Your task to perform on an android device: see creations saved in the google photos Image 0: 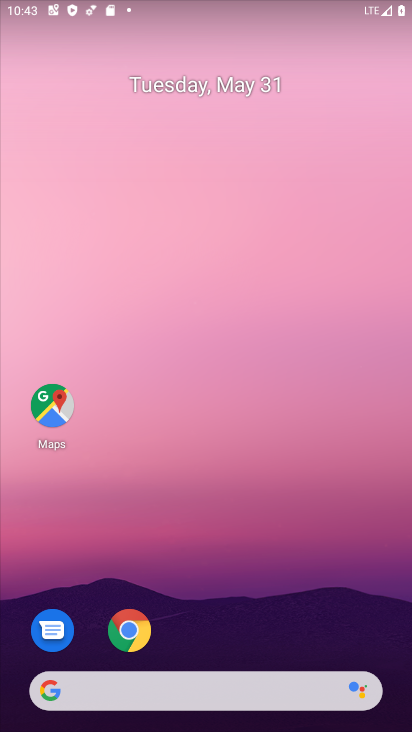
Step 0: drag from (286, 587) to (253, 127)
Your task to perform on an android device: see creations saved in the google photos Image 1: 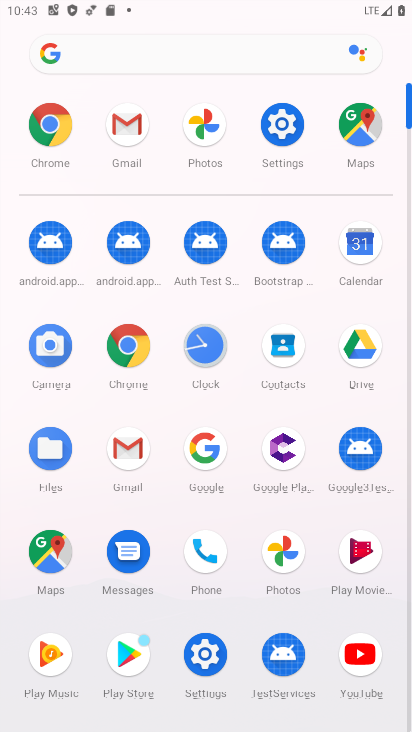
Step 1: click (274, 551)
Your task to perform on an android device: see creations saved in the google photos Image 2: 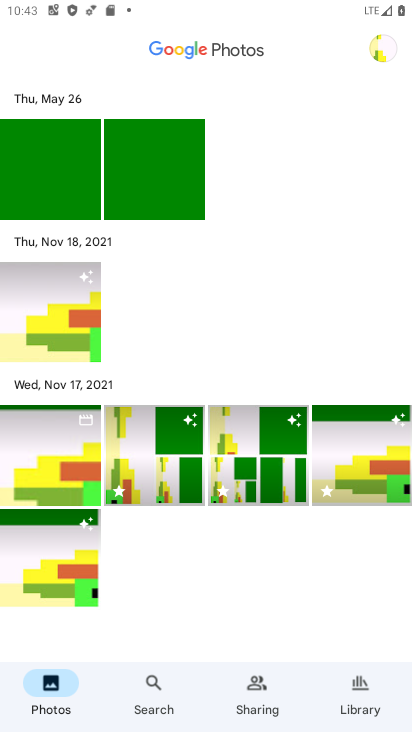
Step 2: click (151, 677)
Your task to perform on an android device: see creations saved in the google photos Image 3: 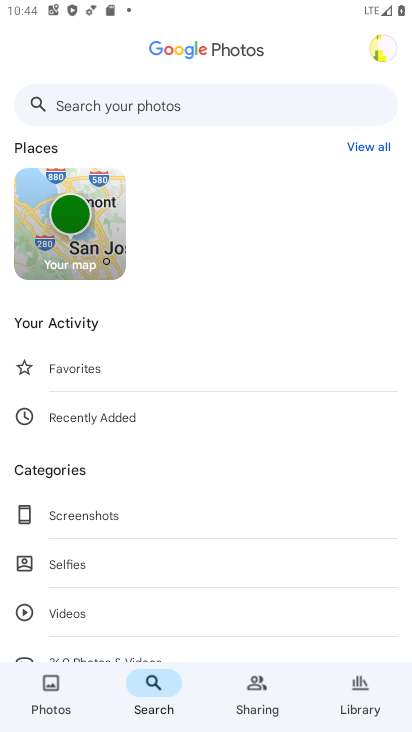
Step 3: drag from (321, 600) to (301, 287)
Your task to perform on an android device: see creations saved in the google photos Image 4: 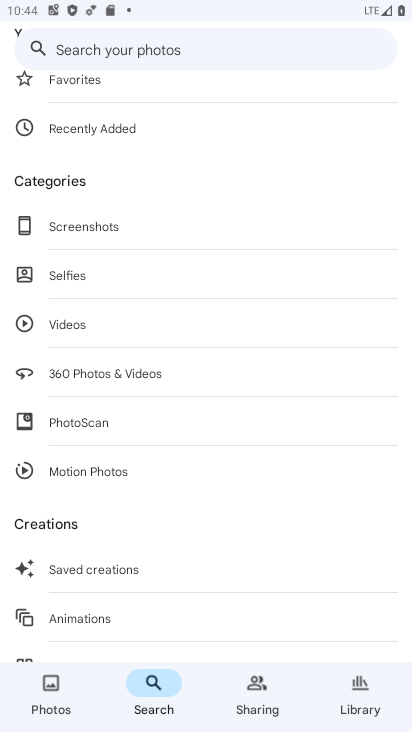
Step 4: click (104, 572)
Your task to perform on an android device: see creations saved in the google photos Image 5: 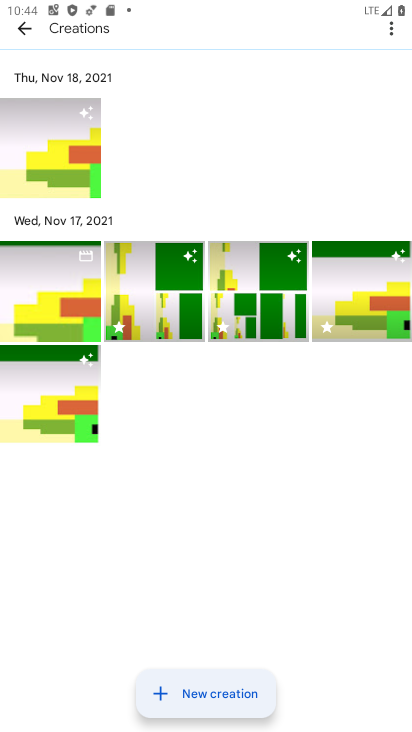
Step 5: task complete